Your task to perform on an android device: remove spam from my inbox in the gmail app Image 0: 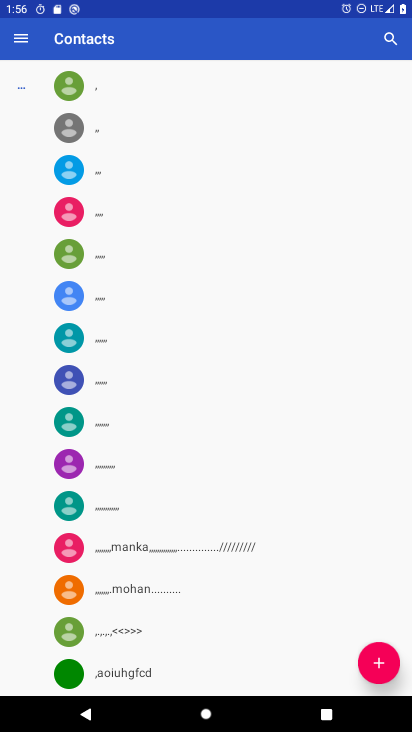
Step 0: press home button
Your task to perform on an android device: remove spam from my inbox in the gmail app Image 1: 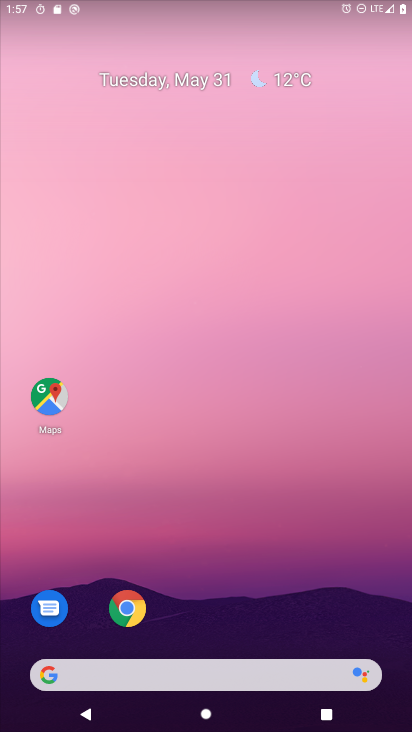
Step 1: drag from (291, 567) to (306, 12)
Your task to perform on an android device: remove spam from my inbox in the gmail app Image 2: 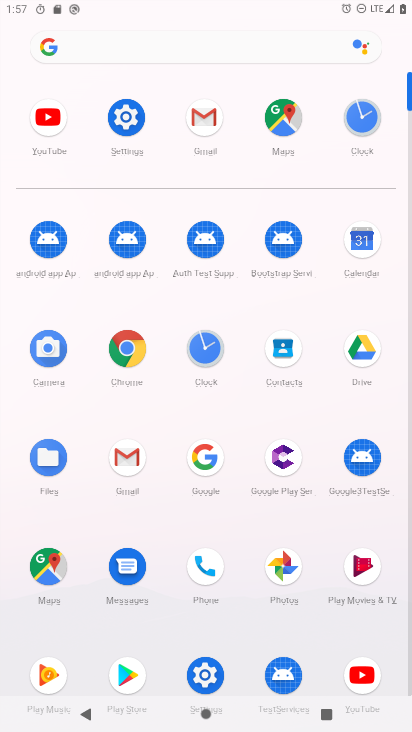
Step 2: click (209, 111)
Your task to perform on an android device: remove spam from my inbox in the gmail app Image 3: 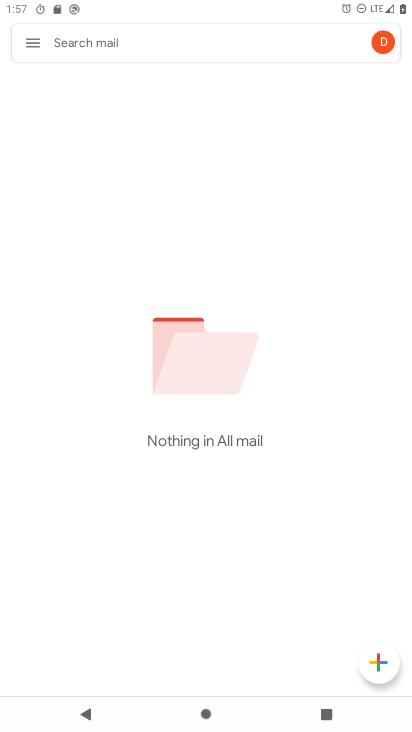
Step 3: click (31, 47)
Your task to perform on an android device: remove spam from my inbox in the gmail app Image 4: 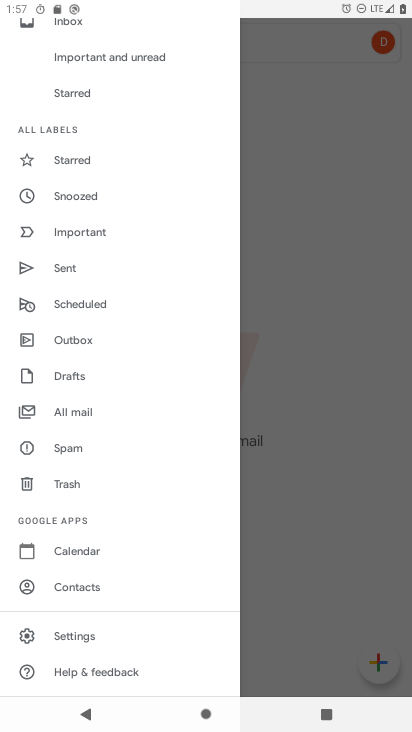
Step 4: click (64, 445)
Your task to perform on an android device: remove spam from my inbox in the gmail app Image 5: 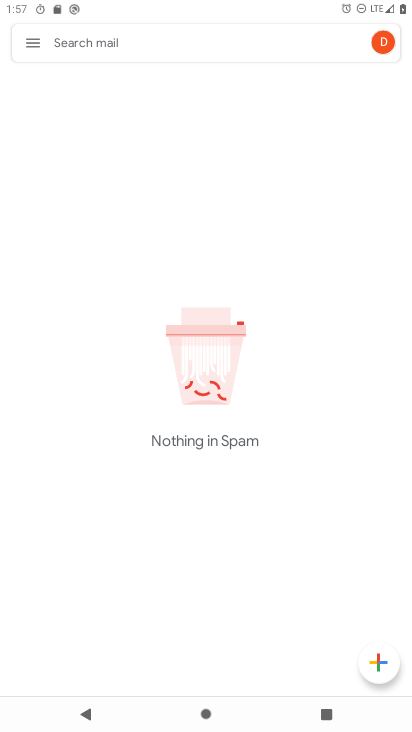
Step 5: task complete